Your task to perform on an android device: turn notification dots off Image 0: 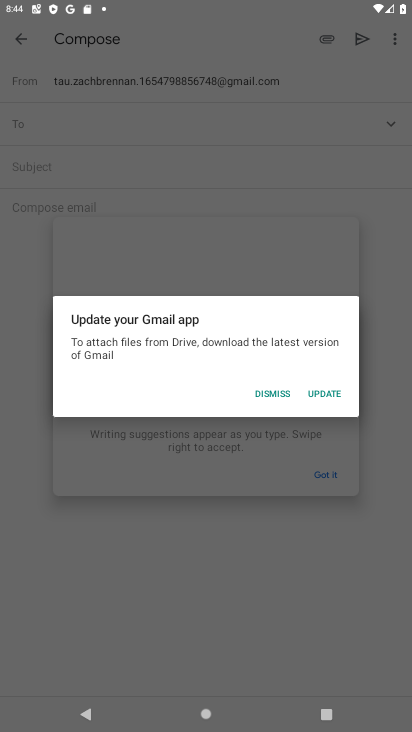
Step 0: press home button
Your task to perform on an android device: turn notification dots off Image 1: 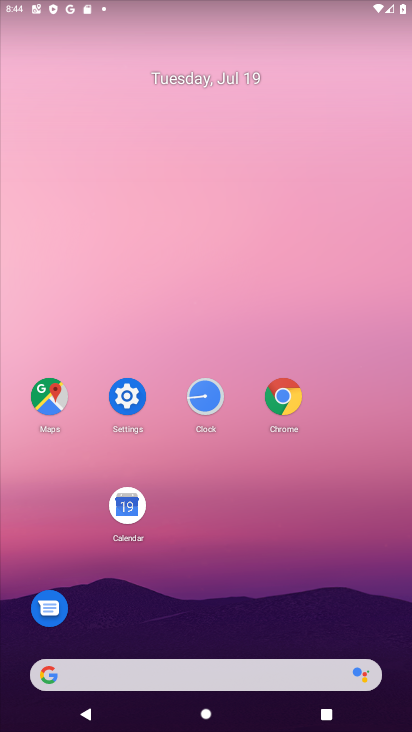
Step 1: click (139, 396)
Your task to perform on an android device: turn notification dots off Image 2: 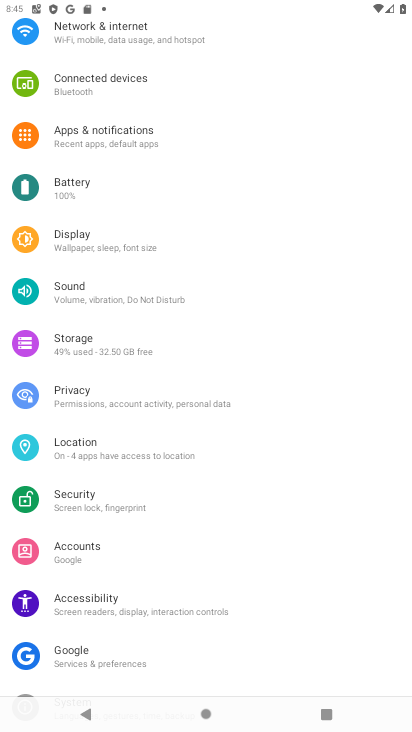
Step 2: click (133, 135)
Your task to perform on an android device: turn notification dots off Image 3: 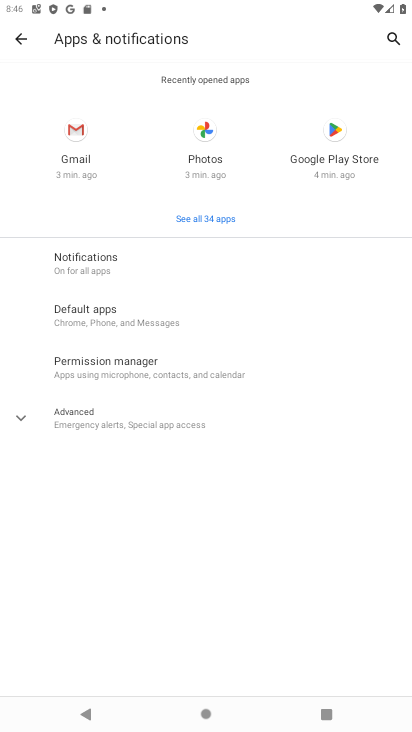
Step 3: click (67, 262)
Your task to perform on an android device: turn notification dots off Image 4: 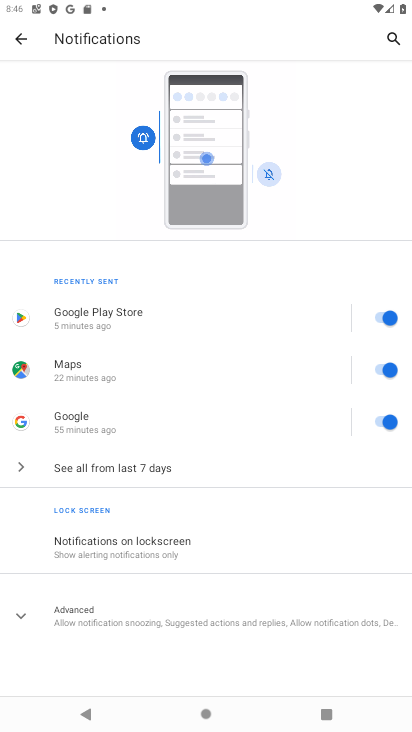
Step 4: click (21, 615)
Your task to perform on an android device: turn notification dots off Image 5: 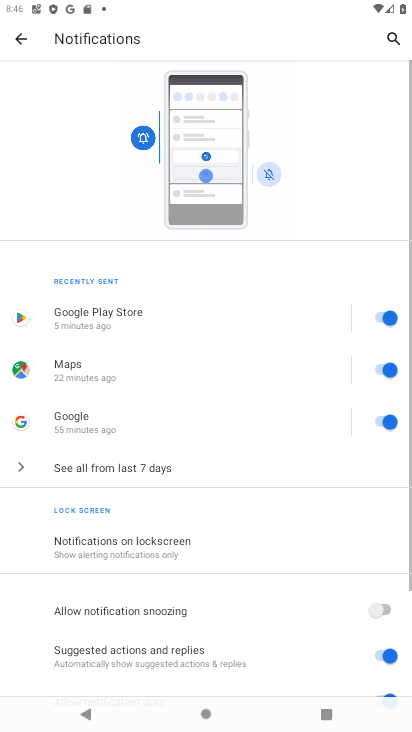
Step 5: drag from (289, 646) to (293, 455)
Your task to perform on an android device: turn notification dots off Image 6: 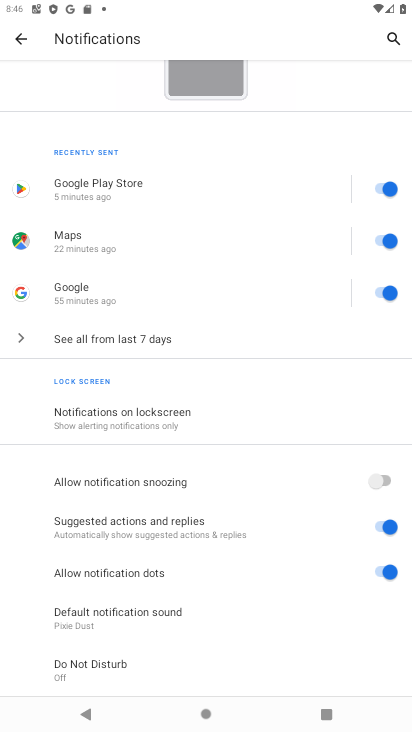
Step 6: click (374, 571)
Your task to perform on an android device: turn notification dots off Image 7: 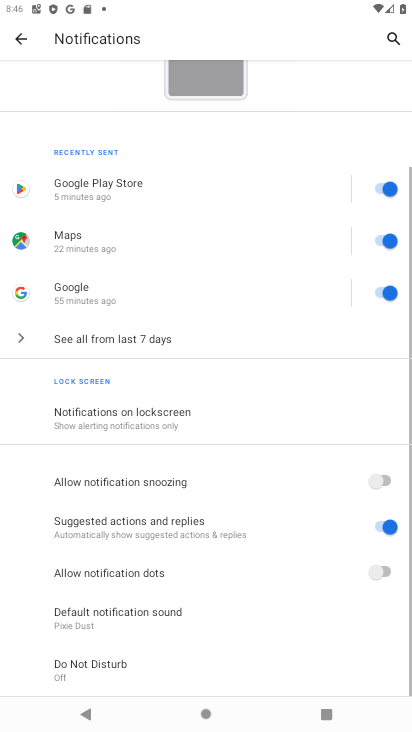
Step 7: task complete